Your task to perform on an android device: change the clock display to show seconds Image 0: 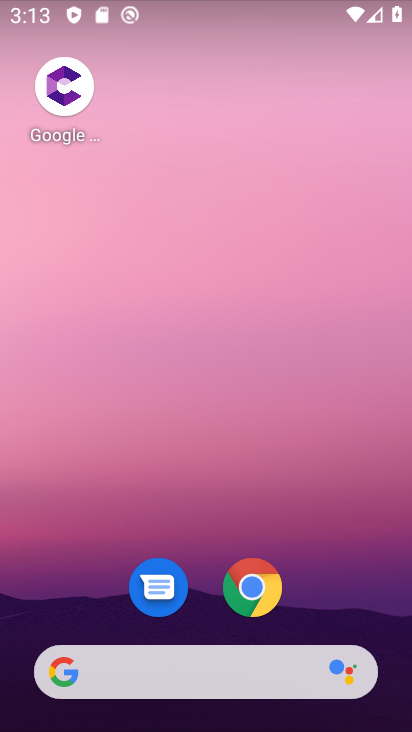
Step 0: drag from (296, 561) to (227, 37)
Your task to perform on an android device: change the clock display to show seconds Image 1: 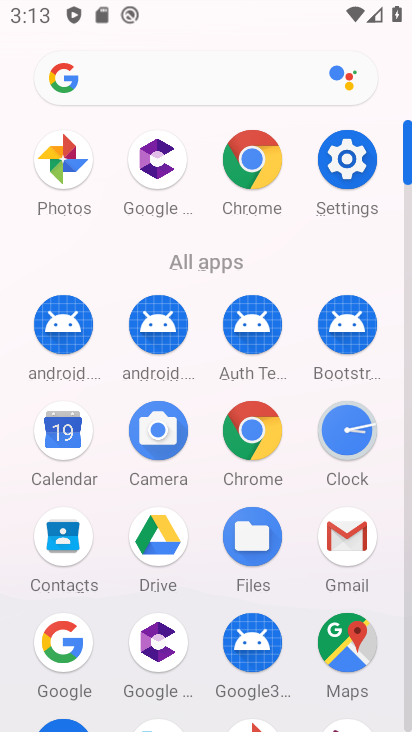
Step 1: drag from (0, 562) to (30, 241)
Your task to perform on an android device: change the clock display to show seconds Image 2: 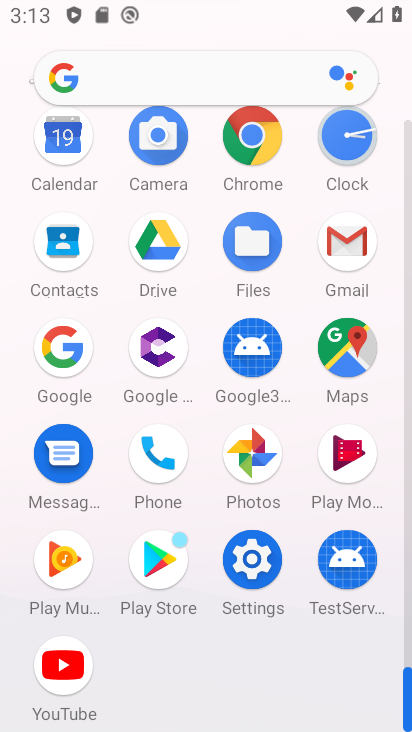
Step 2: drag from (18, 595) to (7, 334)
Your task to perform on an android device: change the clock display to show seconds Image 3: 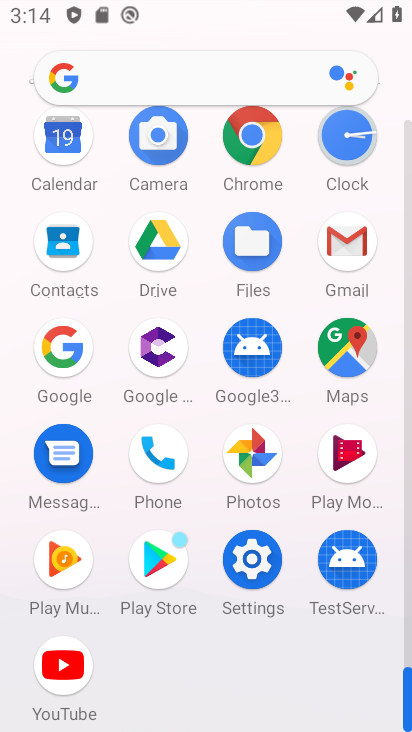
Step 3: click (348, 122)
Your task to perform on an android device: change the clock display to show seconds Image 4: 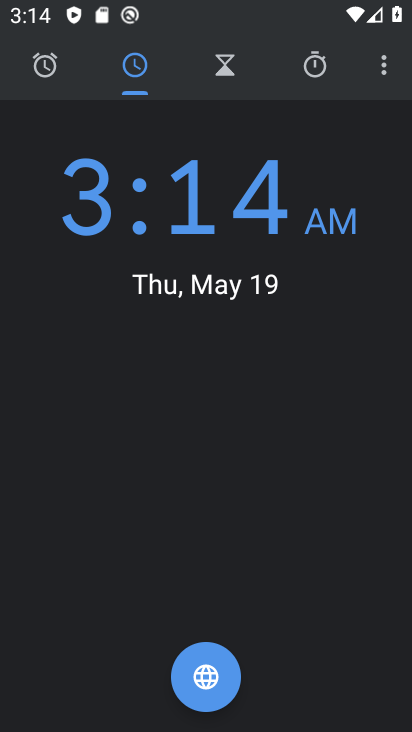
Step 4: drag from (381, 53) to (287, 120)
Your task to perform on an android device: change the clock display to show seconds Image 5: 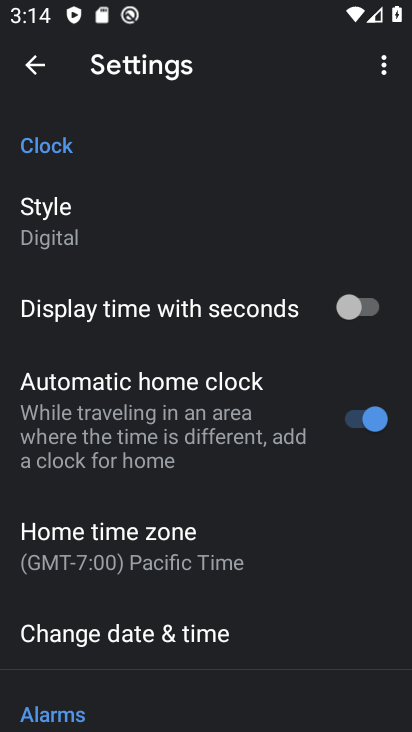
Step 5: click (364, 314)
Your task to perform on an android device: change the clock display to show seconds Image 6: 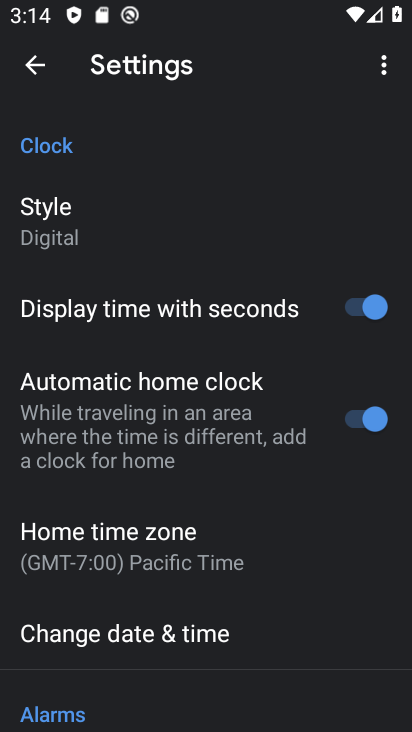
Step 6: task complete